Your task to perform on an android device: Open calendar and show me the third week of next month Image 0: 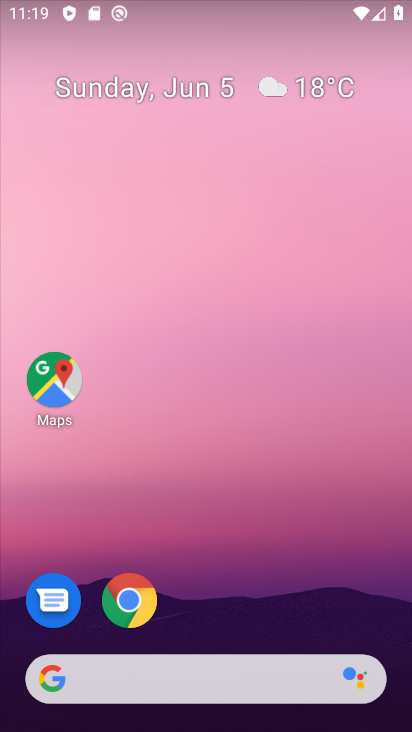
Step 0: drag from (229, 669) to (208, 407)
Your task to perform on an android device: Open calendar and show me the third week of next month Image 1: 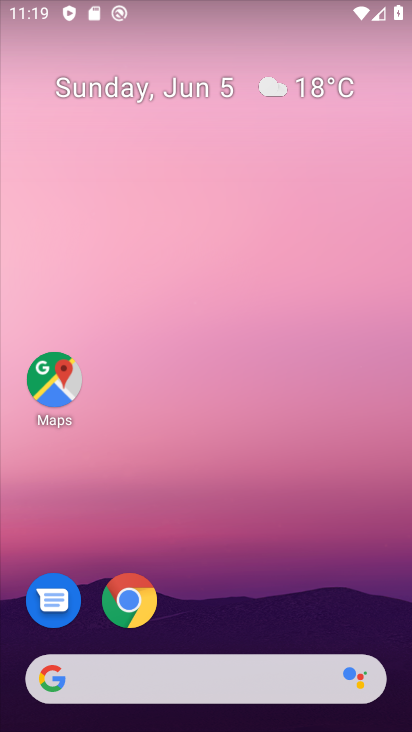
Step 1: drag from (229, 621) to (224, 114)
Your task to perform on an android device: Open calendar and show me the third week of next month Image 2: 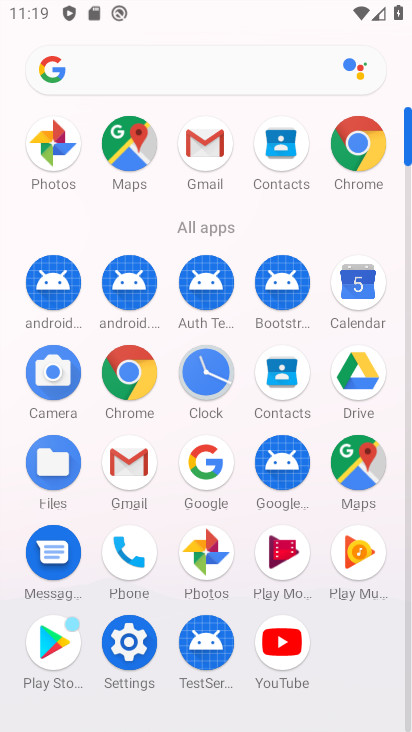
Step 2: click (359, 291)
Your task to perform on an android device: Open calendar and show me the third week of next month Image 3: 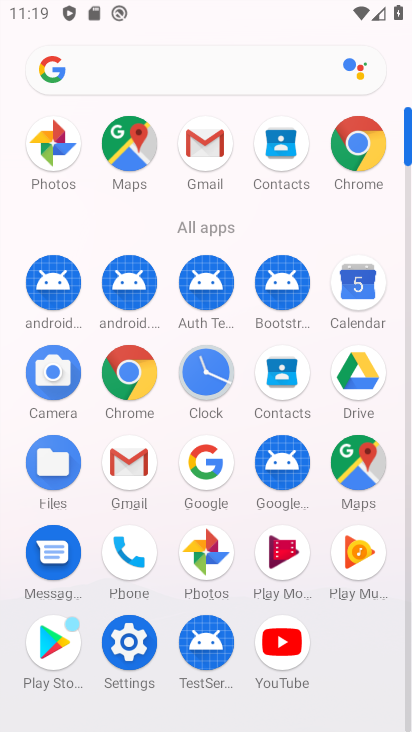
Step 3: click (354, 277)
Your task to perform on an android device: Open calendar and show me the third week of next month Image 4: 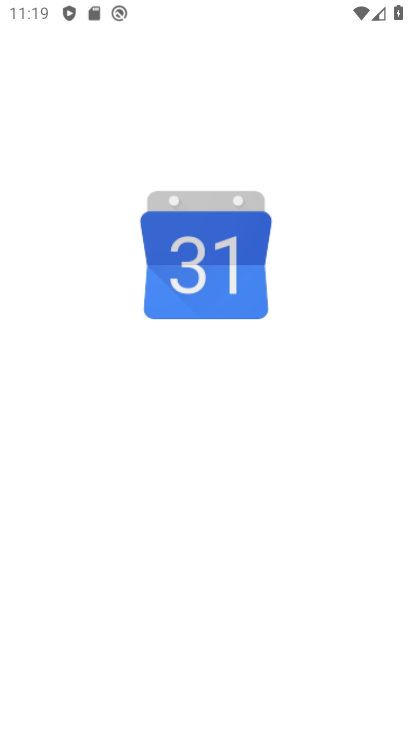
Step 4: click (366, 295)
Your task to perform on an android device: Open calendar and show me the third week of next month Image 5: 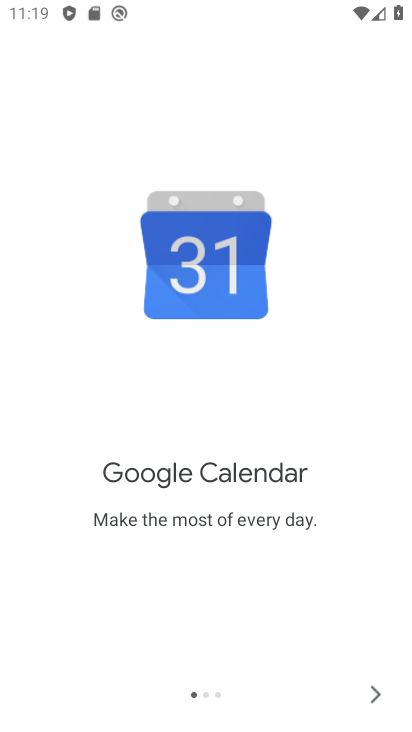
Step 5: click (371, 691)
Your task to perform on an android device: Open calendar and show me the third week of next month Image 6: 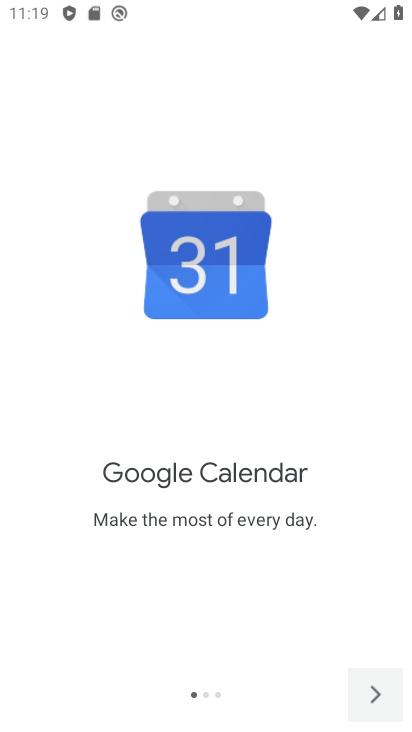
Step 6: click (380, 689)
Your task to perform on an android device: Open calendar and show me the third week of next month Image 7: 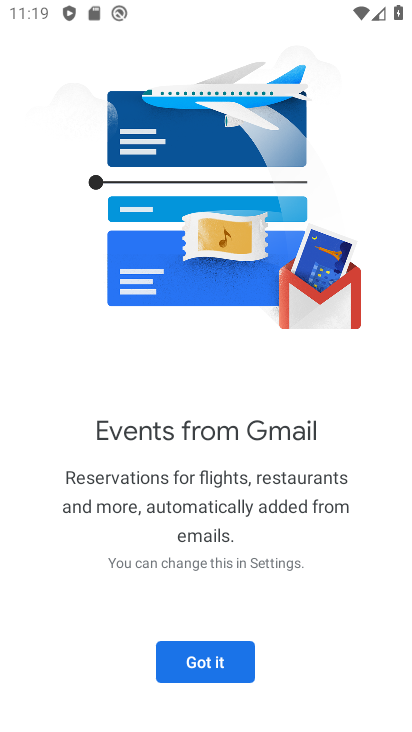
Step 7: click (221, 656)
Your task to perform on an android device: Open calendar and show me the third week of next month Image 8: 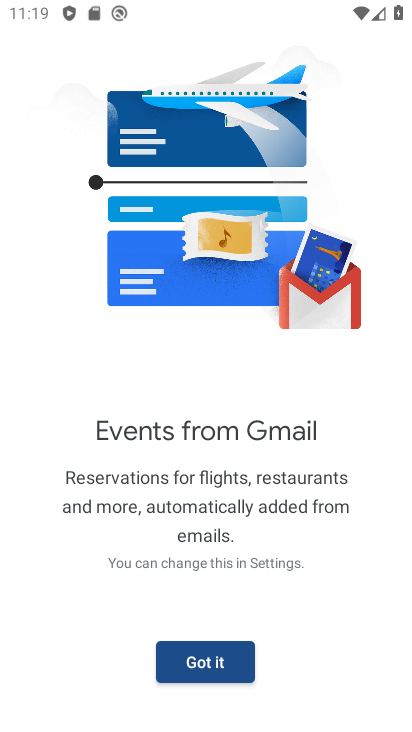
Step 8: click (233, 661)
Your task to perform on an android device: Open calendar and show me the third week of next month Image 9: 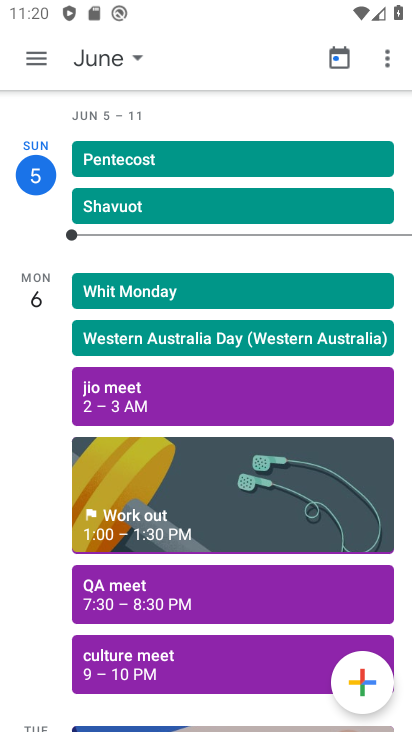
Step 9: click (133, 60)
Your task to perform on an android device: Open calendar and show me the third week of next month Image 10: 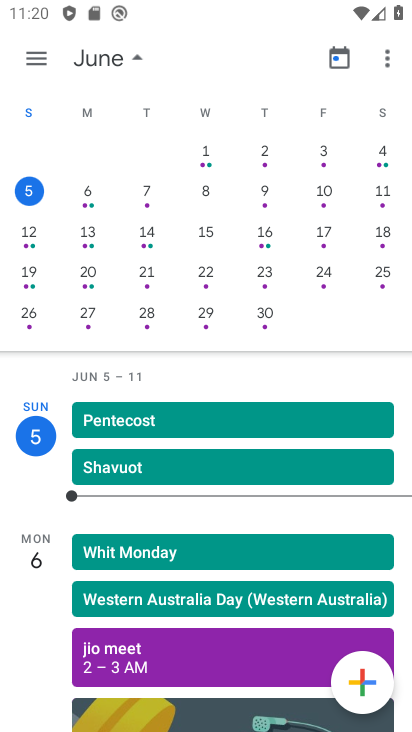
Step 10: click (205, 234)
Your task to perform on an android device: Open calendar and show me the third week of next month Image 11: 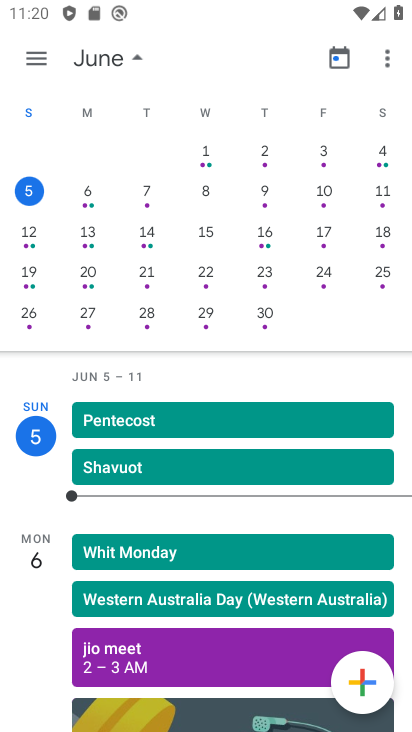
Step 11: click (205, 234)
Your task to perform on an android device: Open calendar and show me the third week of next month Image 12: 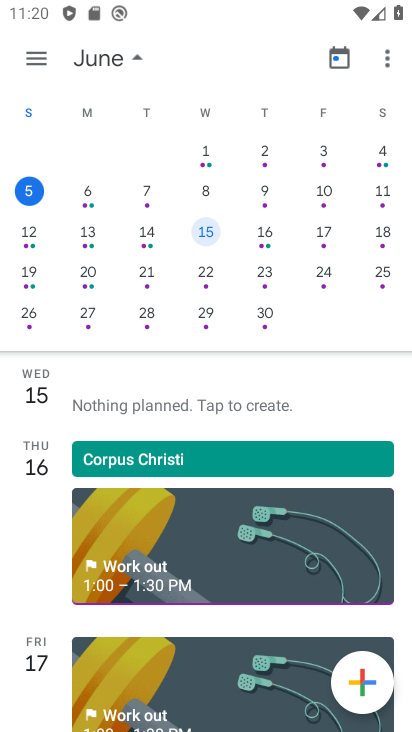
Step 12: click (205, 234)
Your task to perform on an android device: Open calendar and show me the third week of next month Image 13: 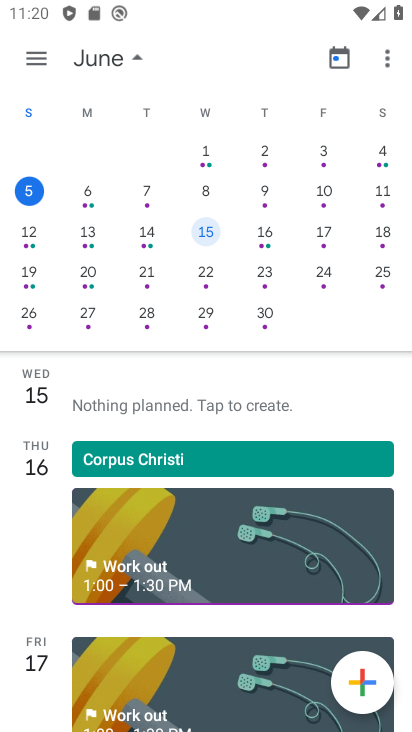
Step 13: click (209, 224)
Your task to perform on an android device: Open calendar and show me the third week of next month Image 14: 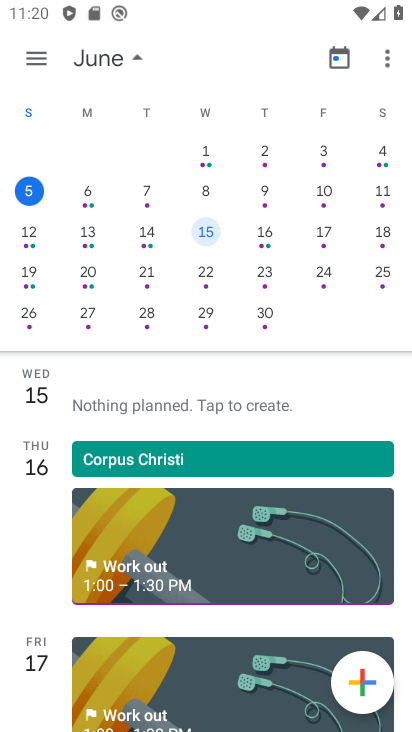
Step 14: task complete